Your task to perform on an android device: set an alarm Image 0: 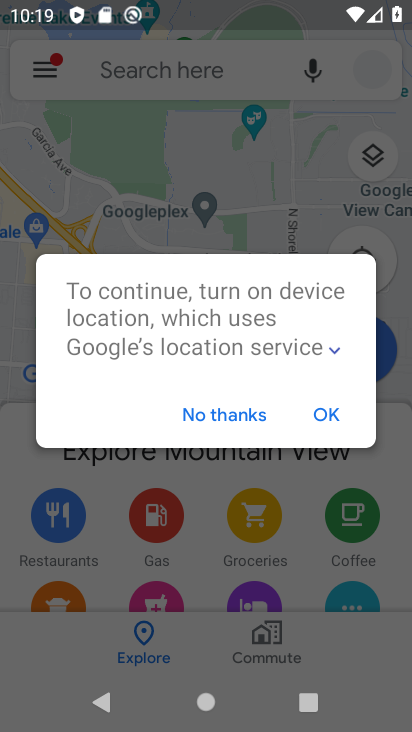
Step 0: press home button
Your task to perform on an android device: set an alarm Image 1: 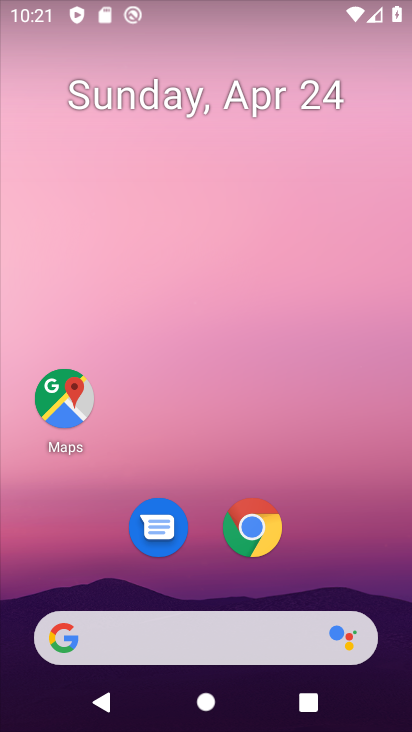
Step 1: drag from (216, 570) to (275, 247)
Your task to perform on an android device: set an alarm Image 2: 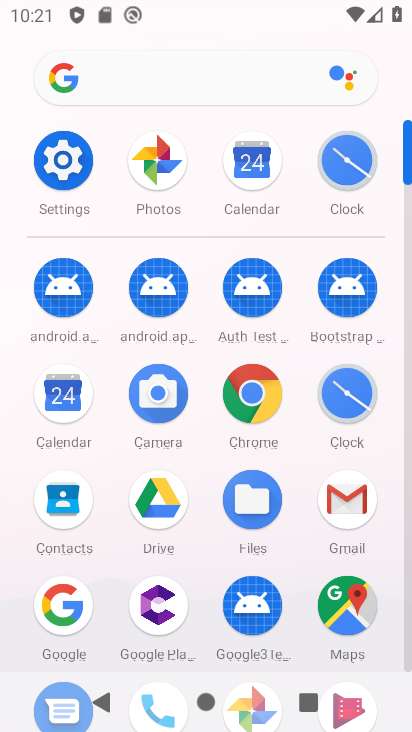
Step 2: click (357, 164)
Your task to perform on an android device: set an alarm Image 3: 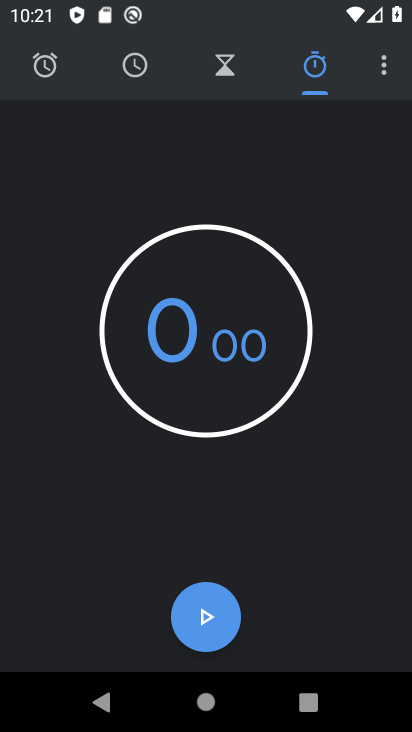
Step 3: click (47, 63)
Your task to perform on an android device: set an alarm Image 4: 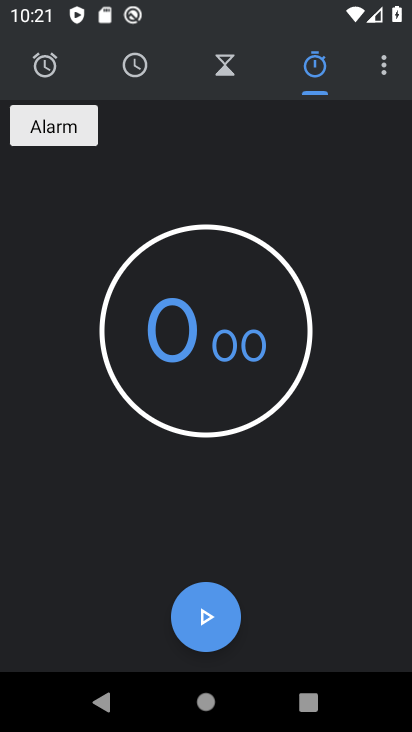
Step 4: click (47, 60)
Your task to perform on an android device: set an alarm Image 5: 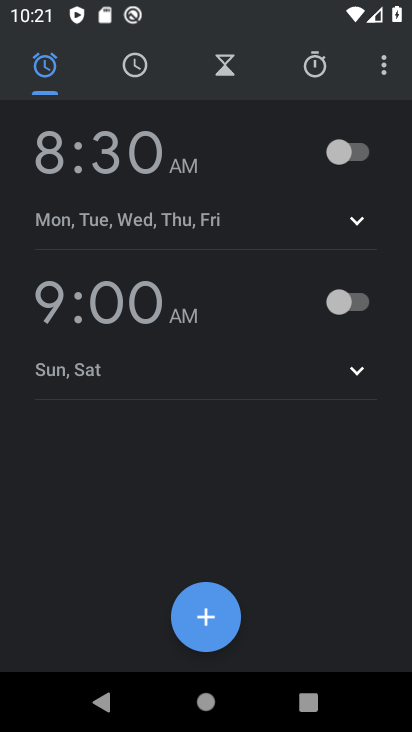
Step 5: click (339, 145)
Your task to perform on an android device: set an alarm Image 6: 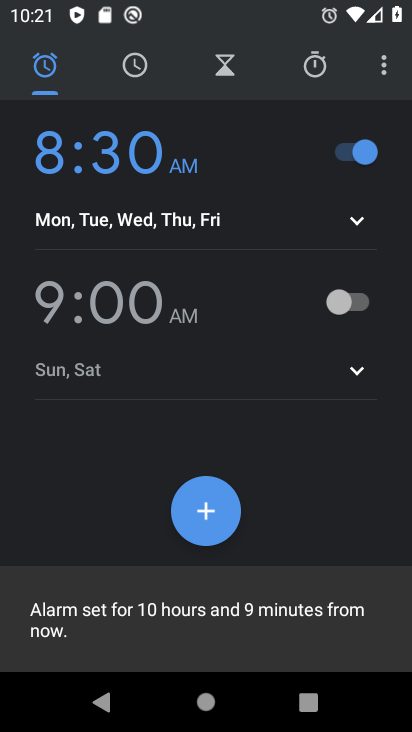
Step 6: task complete